Your task to perform on an android device: toggle priority inbox in the gmail app Image 0: 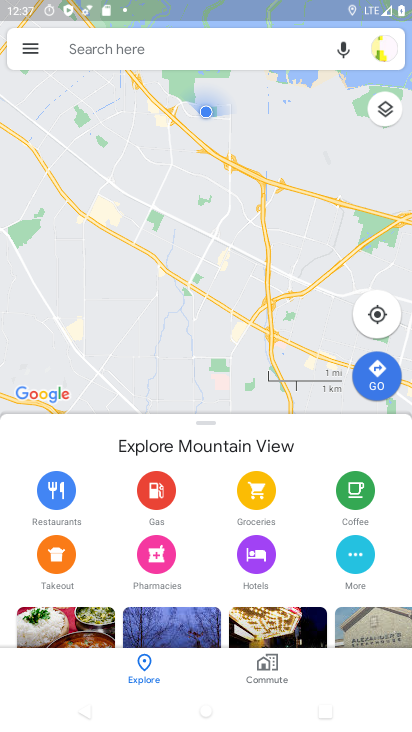
Step 0: press home button
Your task to perform on an android device: toggle priority inbox in the gmail app Image 1: 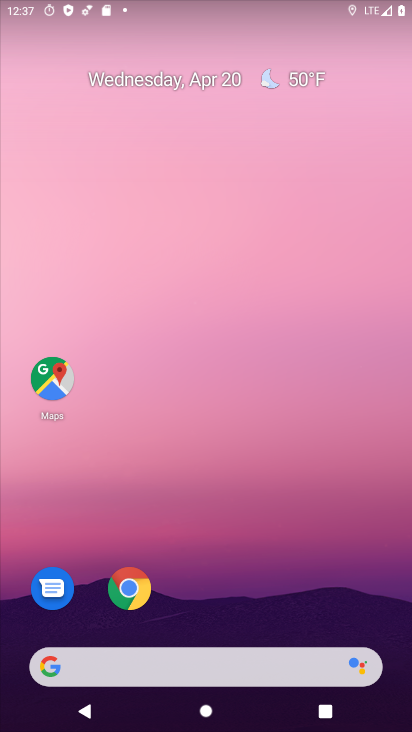
Step 1: drag from (218, 611) to (173, 130)
Your task to perform on an android device: toggle priority inbox in the gmail app Image 2: 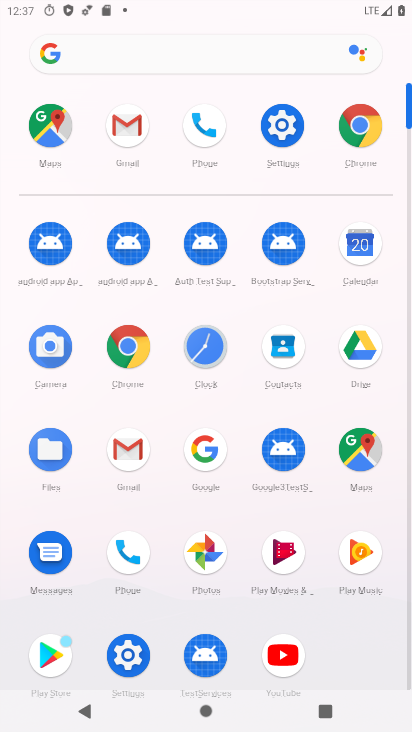
Step 2: click (124, 458)
Your task to perform on an android device: toggle priority inbox in the gmail app Image 3: 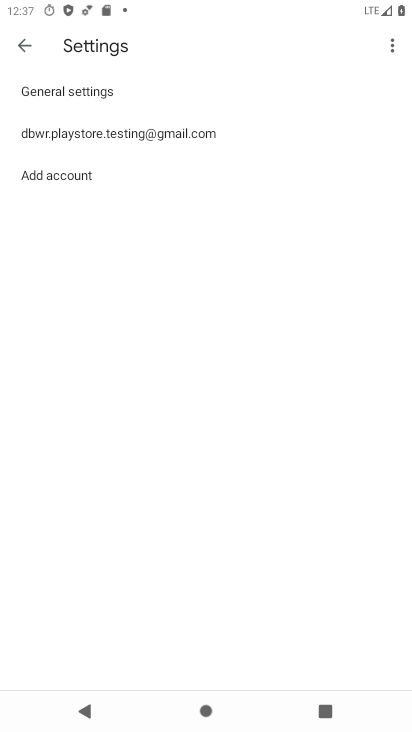
Step 3: click (60, 137)
Your task to perform on an android device: toggle priority inbox in the gmail app Image 4: 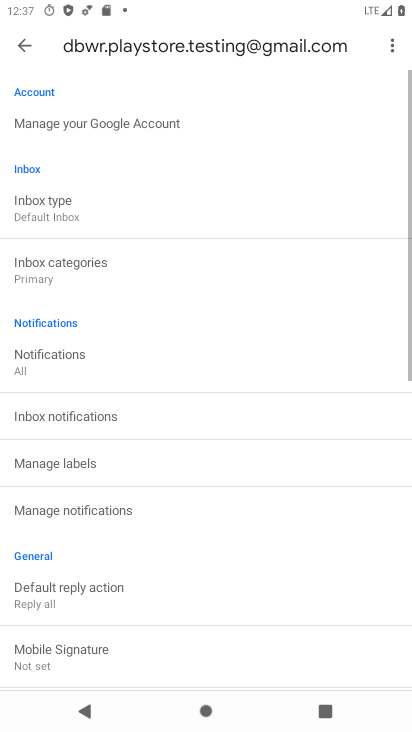
Step 4: click (52, 219)
Your task to perform on an android device: toggle priority inbox in the gmail app Image 5: 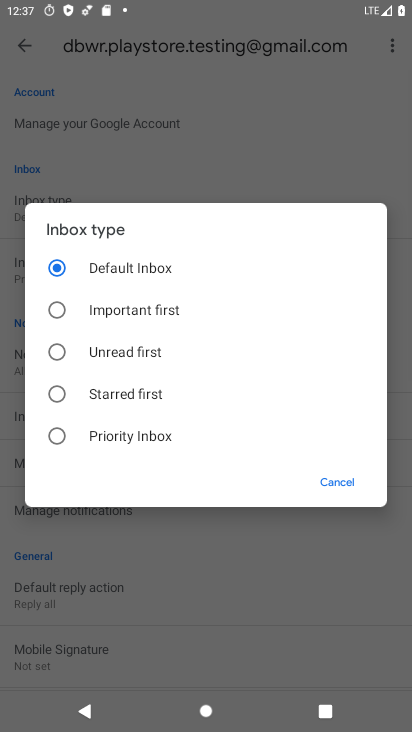
Step 5: click (106, 436)
Your task to perform on an android device: toggle priority inbox in the gmail app Image 6: 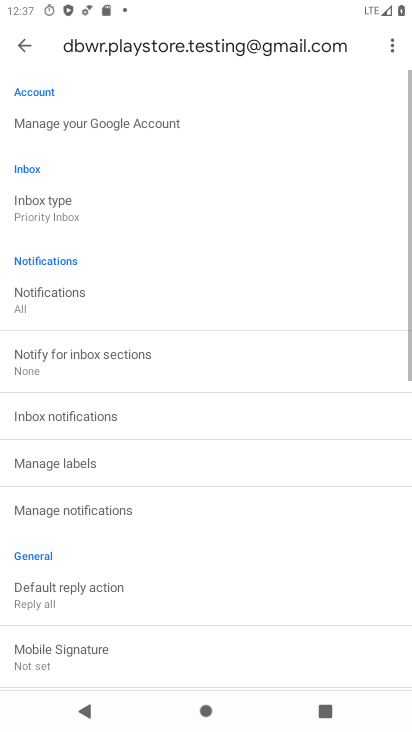
Step 6: task complete